Your task to perform on an android device: Search for bose soundsport free on ebay, select the first entry, add it to the cart, then select checkout. Image 0: 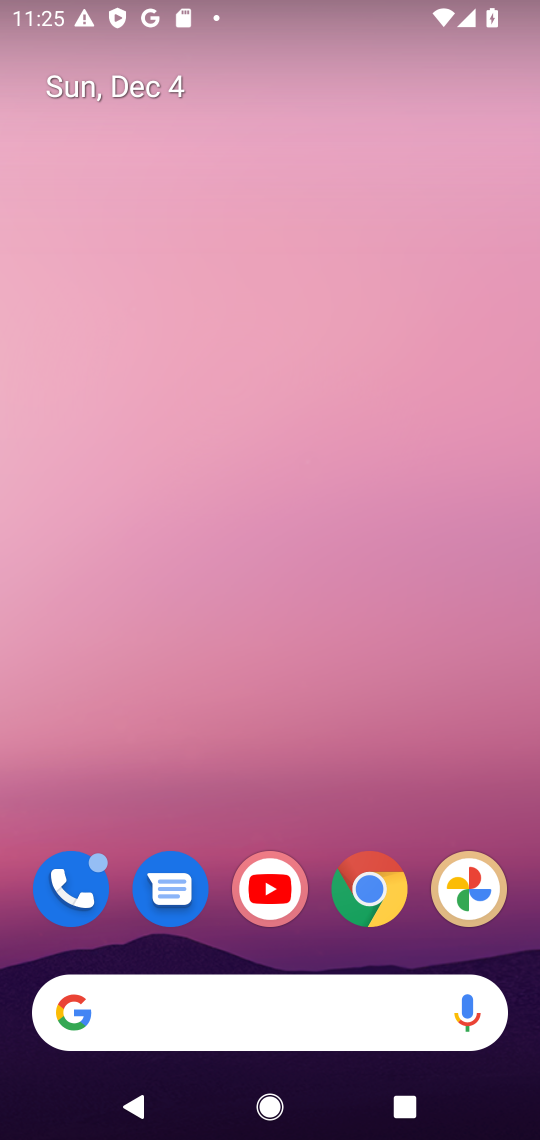
Step 0: click (378, 894)
Your task to perform on an android device: Search for bose soundsport free on ebay, select the first entry, add it to the cart, then select checkout. Image 1: 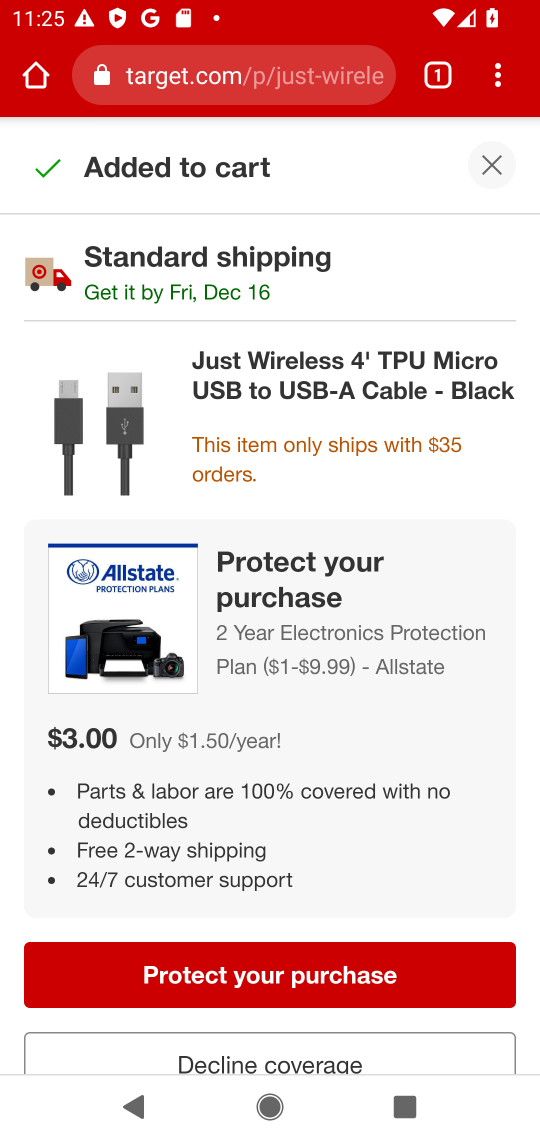
Step 1: click (321, 72)
Your task to perform on an android device: Search for bose soundsport free on ebay, select the first entry, add it to the cart, then select checkout. Image 2: 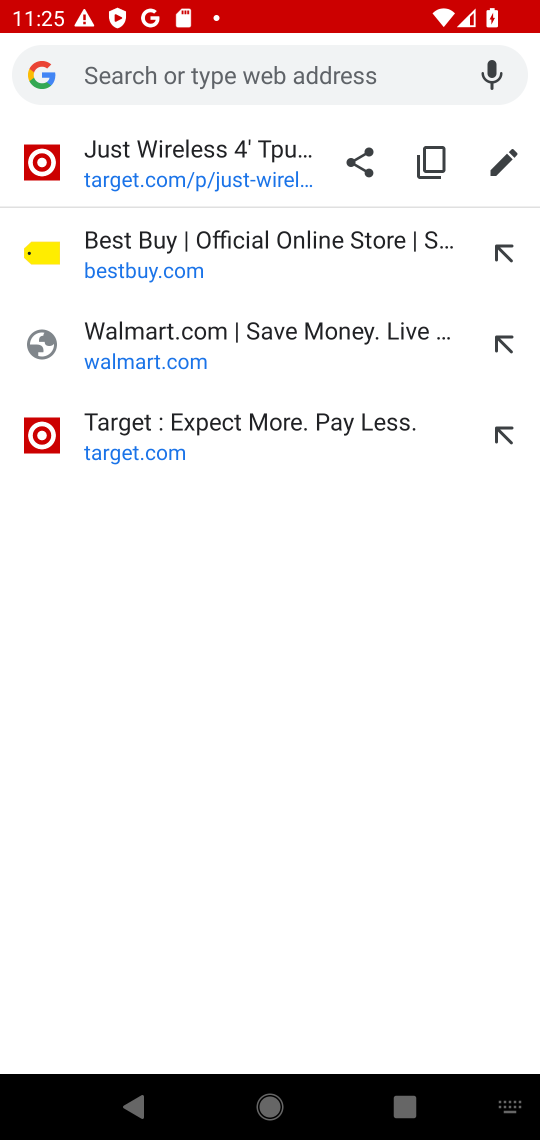
Step 2: press enter
Your task to perform on an android device: Search for bose soundsport free on ebay, select the first entry, add it to the cart, then select checkout. Image 3: 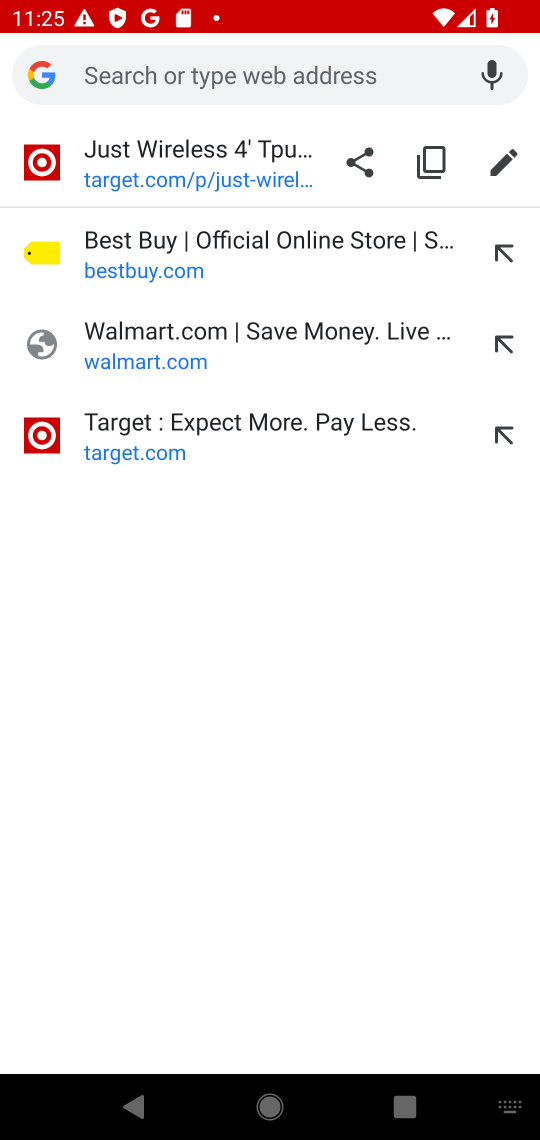
Step 3: type "ebay"
Your task to perform on an android device: Search for bose soundsport free on ebay, select the first entry, add it to the cart, then select checkout. Image 4: 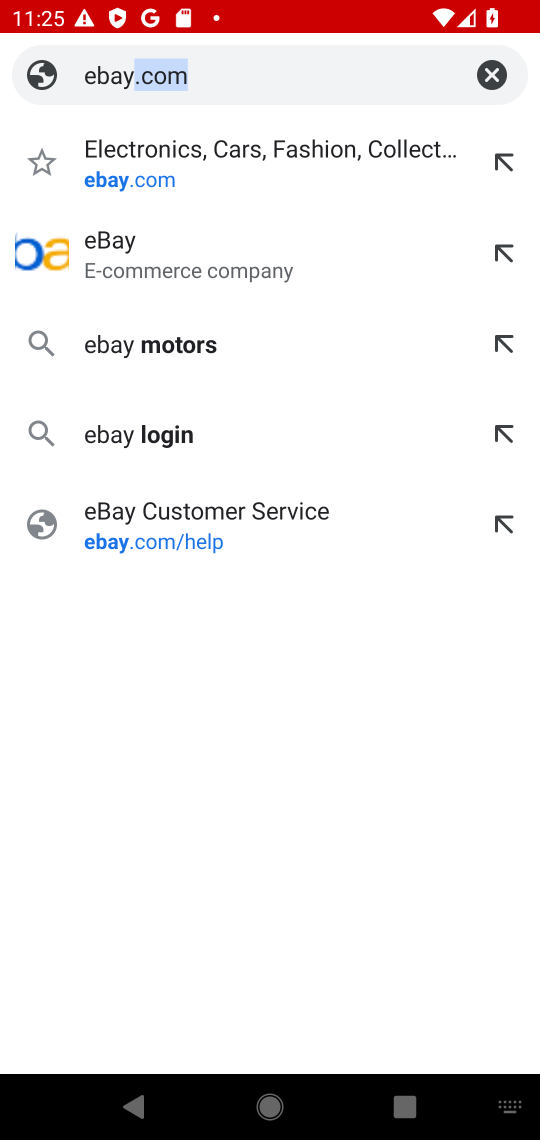
Step 4: click (326, 70)
Your task to perform on an android device: Search for bose soundsport free on ebay, select the first entry, add it to the cart, then select checkout. Image 5: 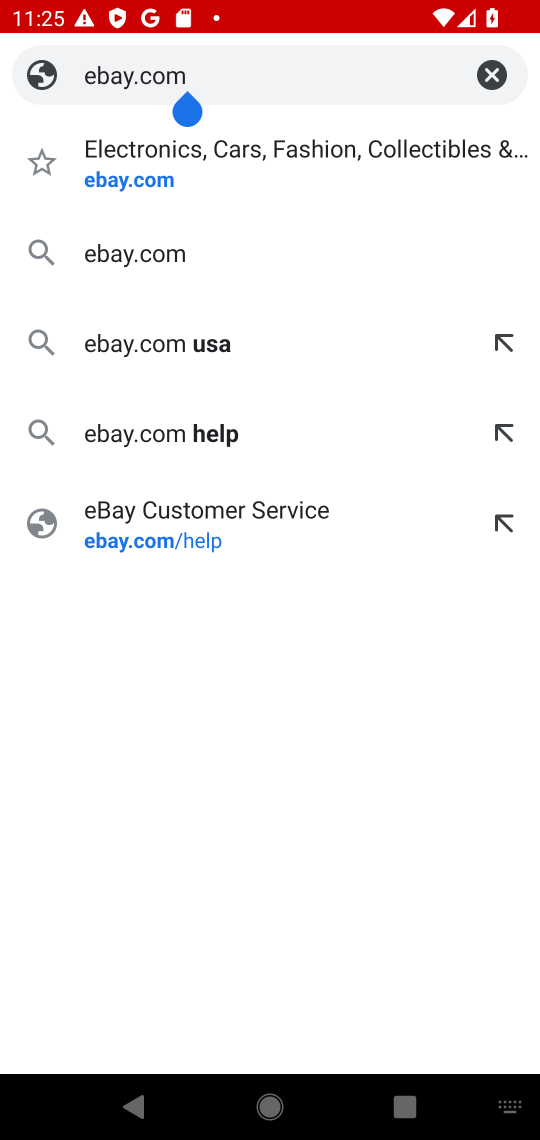
Step 5: click (169, 245)
Your task to perform on an android device: Search for bose soundsport free on ebay, select the first entry, add it to the cart, then select checkout. Image 6: 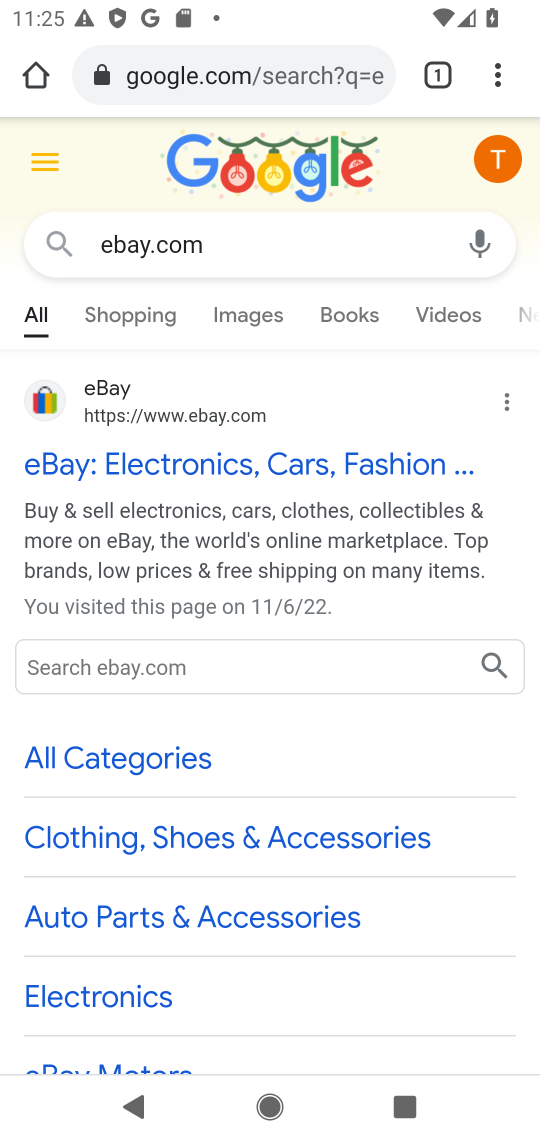
Step 6: click (170, 415)
Your task to perform on an android device: Search for bose soundsport free on ebay, select the first entry, add it to the cart, then select checkout. Image 7: 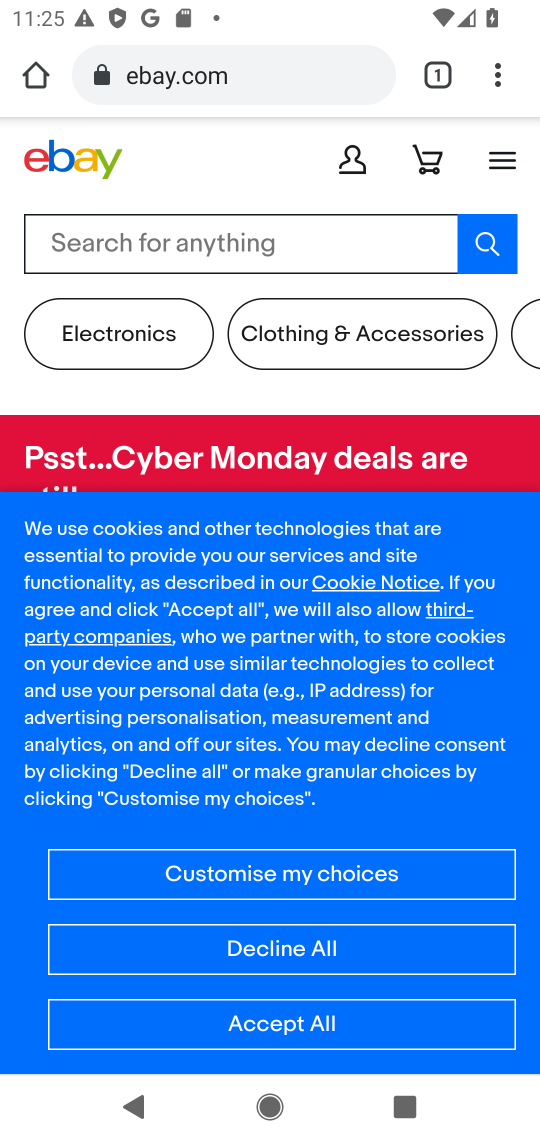
Step 7: click (356, 245)
Your task to perform on an android device: Search for bose soundsport free on ebay, select the first entry, add it to the cart, then select checkout. Image 8: 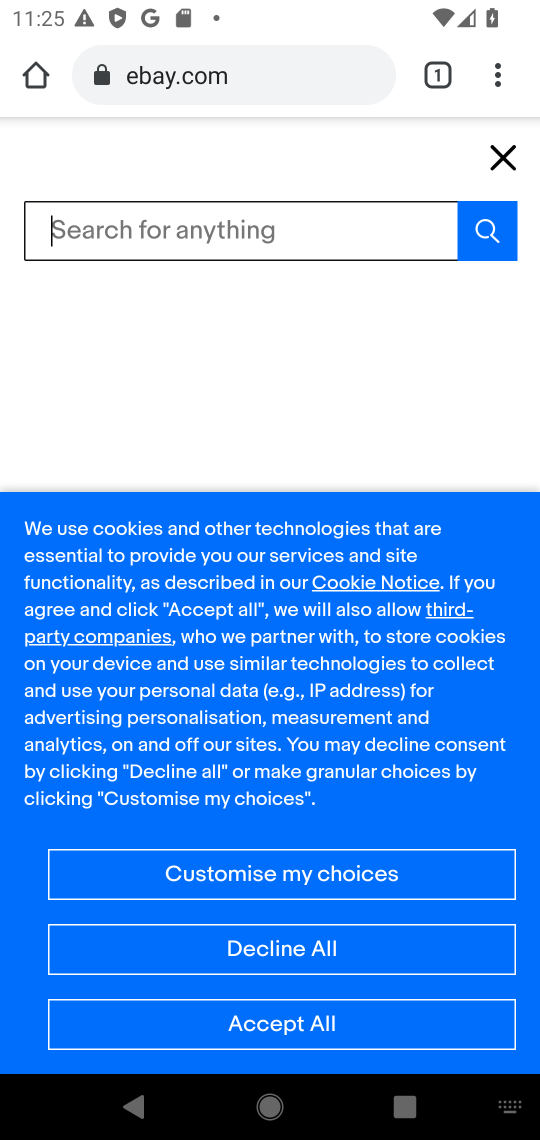
Step 8: type "bose soundsport free "
Your task to perform on an android device: Search for bose soundsport free on ebay, select the first entry, add it to the cart, then select checkout. Image 9: 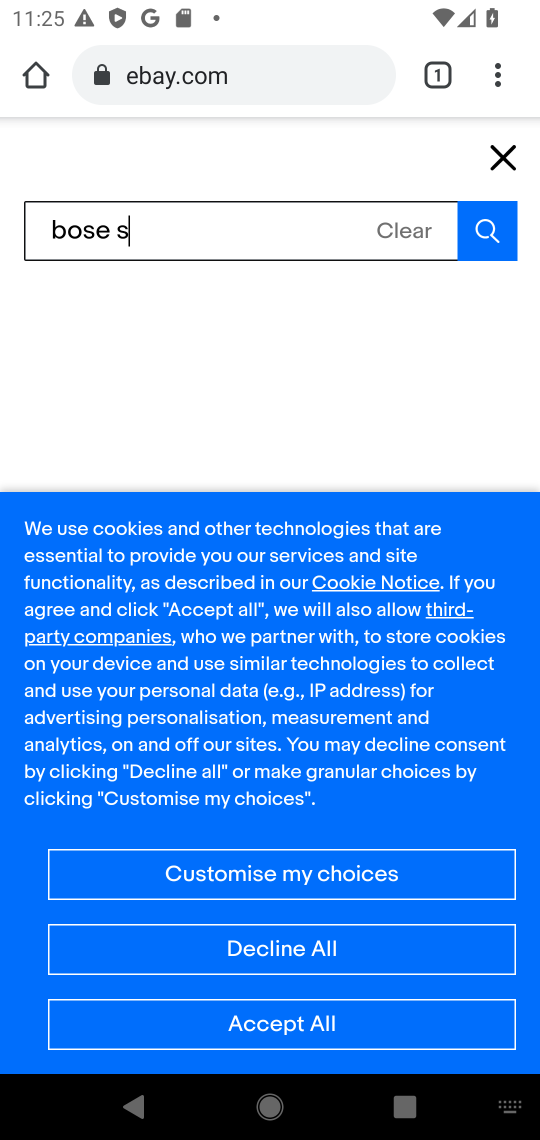
Step 9: press enter
Your task to perform on an android device: Search for bose soundsport free on ebay, select the first entry, add it to the cart, then select checkout. Image 10: 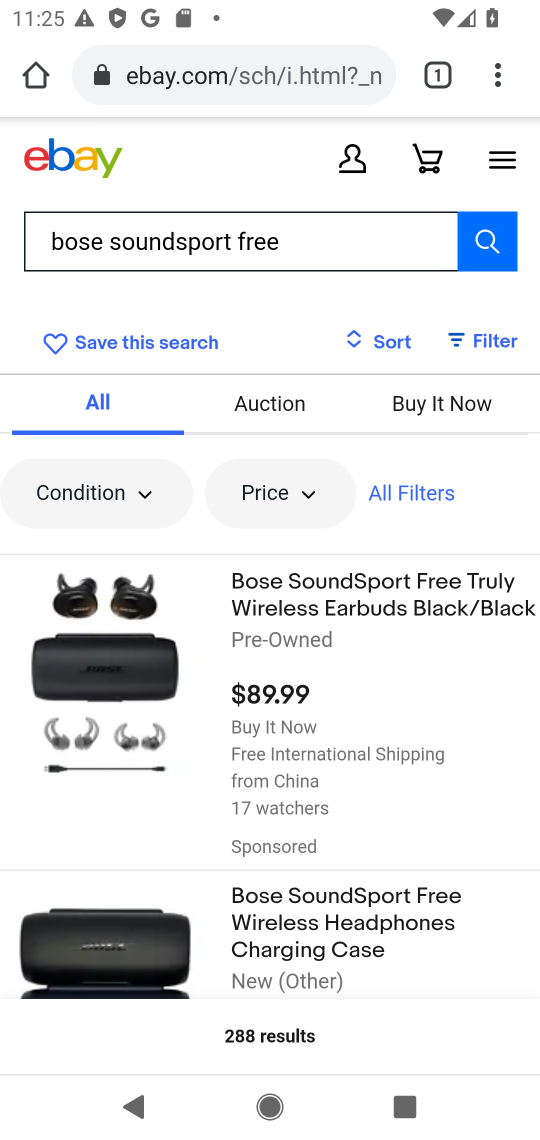
Step 10: click (95, 645)
Your task to perform on an android device: Search for bose soundsport free on ebay, select the first entry, add it to the cart, then select checkout. Image 11: 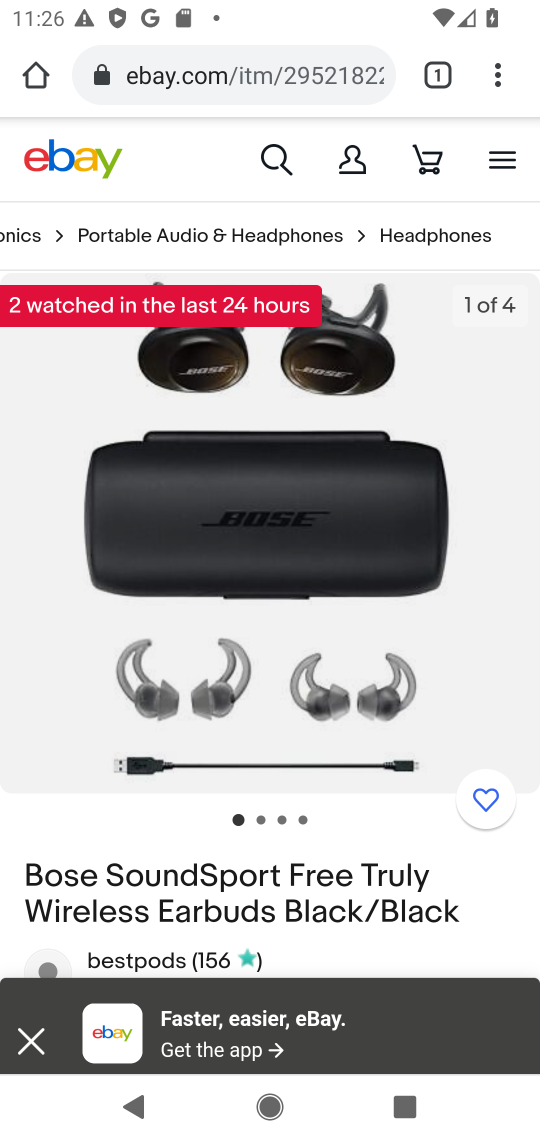
Step 11: drag from (375, 875) to (442, 114)
Your task to perform on an android device: Search for bose soundsport free on ebay, select the first entry, add it to the cart, then select checkout. Image 12: 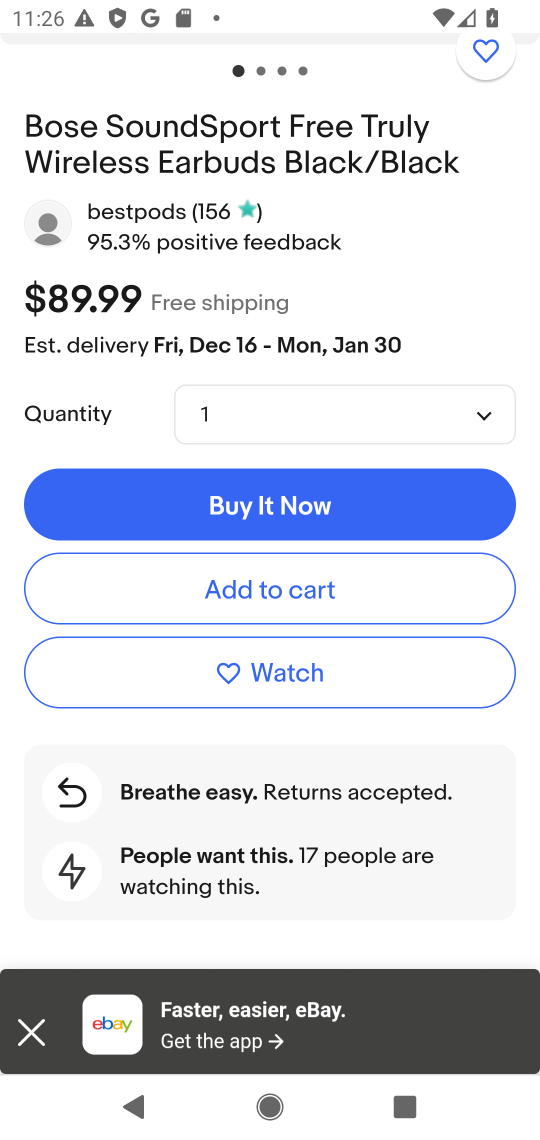
Step 12: click (328, 583)
Your task to perform on an android device: Search for bose soundsport free on ebay, select the first entry, add it to the cart, then select checkout. Image 13: 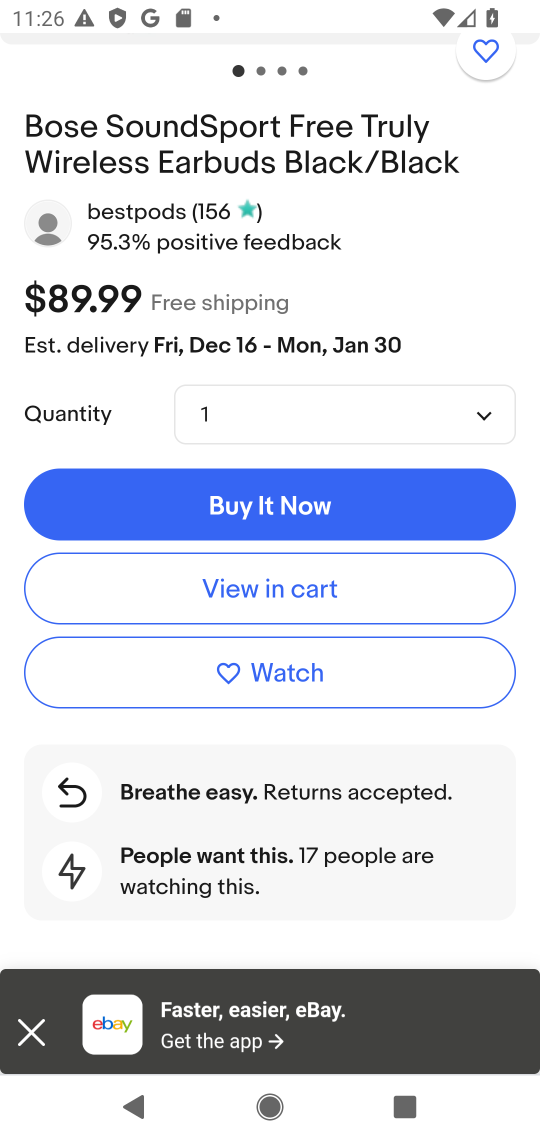
Step 13: click (302, 594)
Your task to perform on an android device: Search for bose soundsport free on ebay, select the first entry, add it to the cart, then select checkout. Image 14: 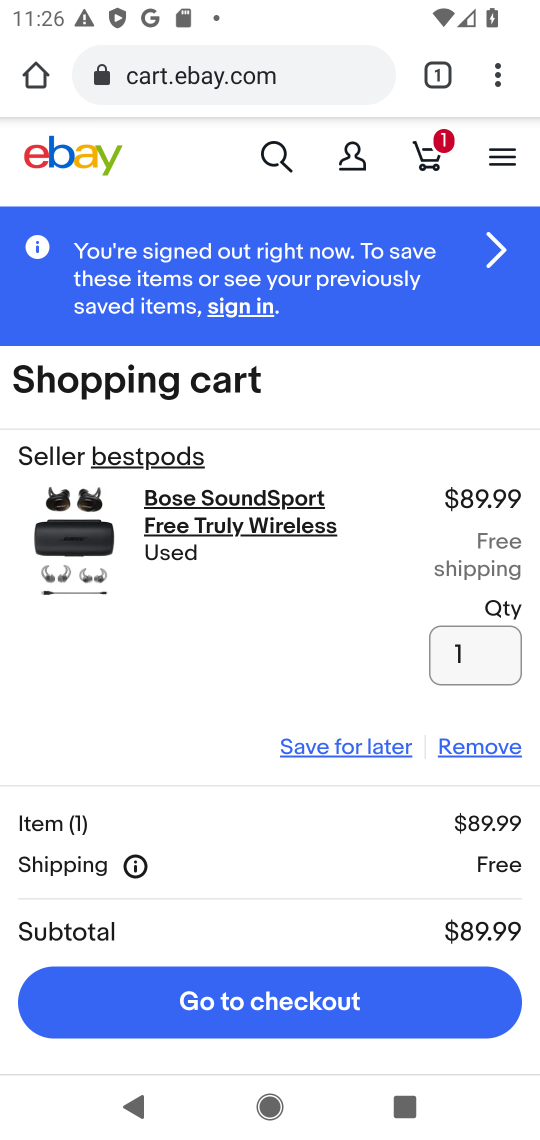
Step 14: click (299, 1002)
Your task to perform on an android device: Search for bose soundsport free on ebay, select the first entry, add it to the cart, then select checkout. Image 15: 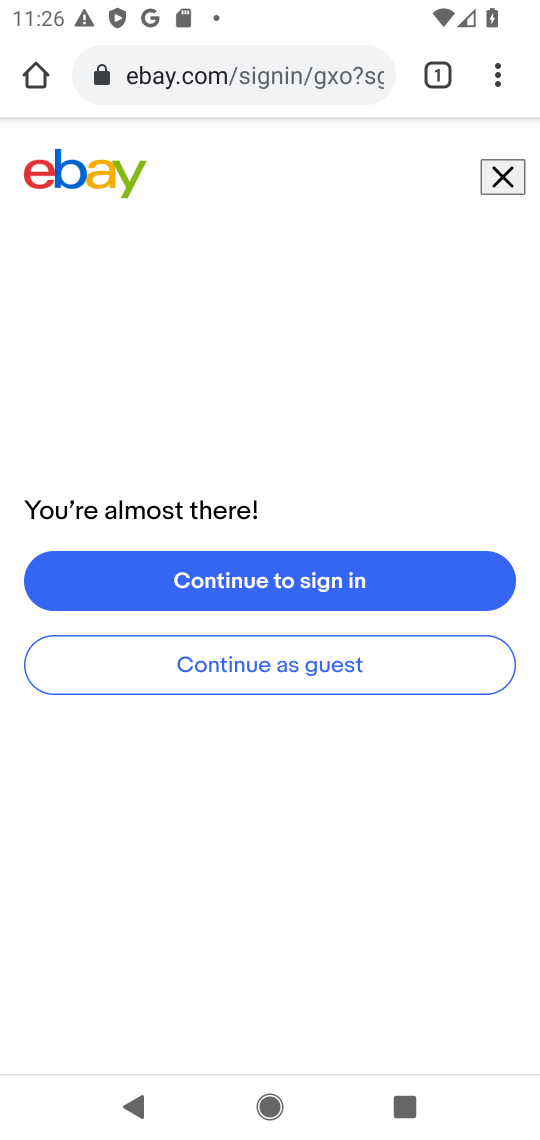
Step 15: task complete